Your task to perform on an android device: Open the web browser Image 0: 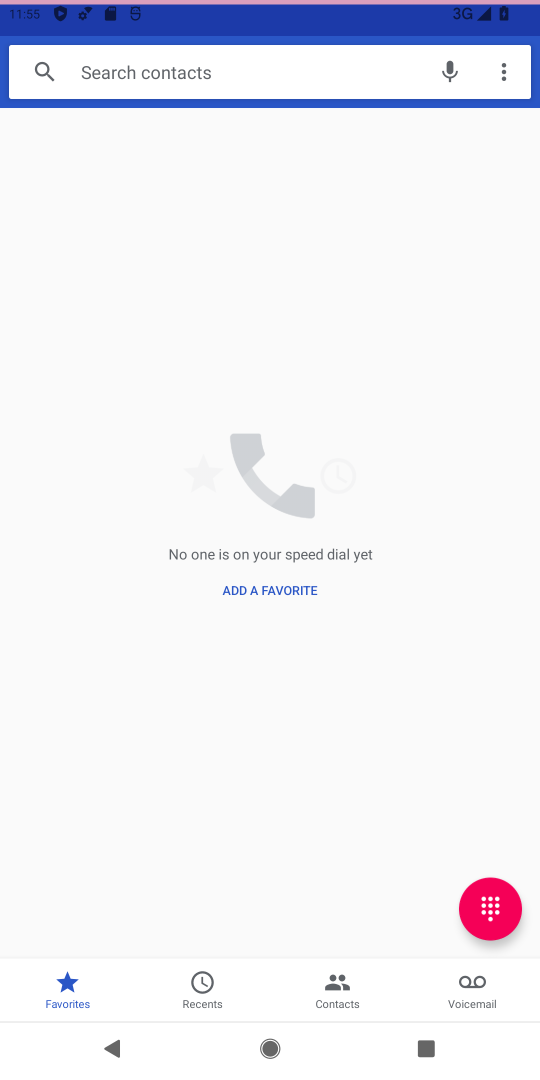
Step 0: click (365, 256)
Your task to perform on an android device: Open the web browser Image 1: 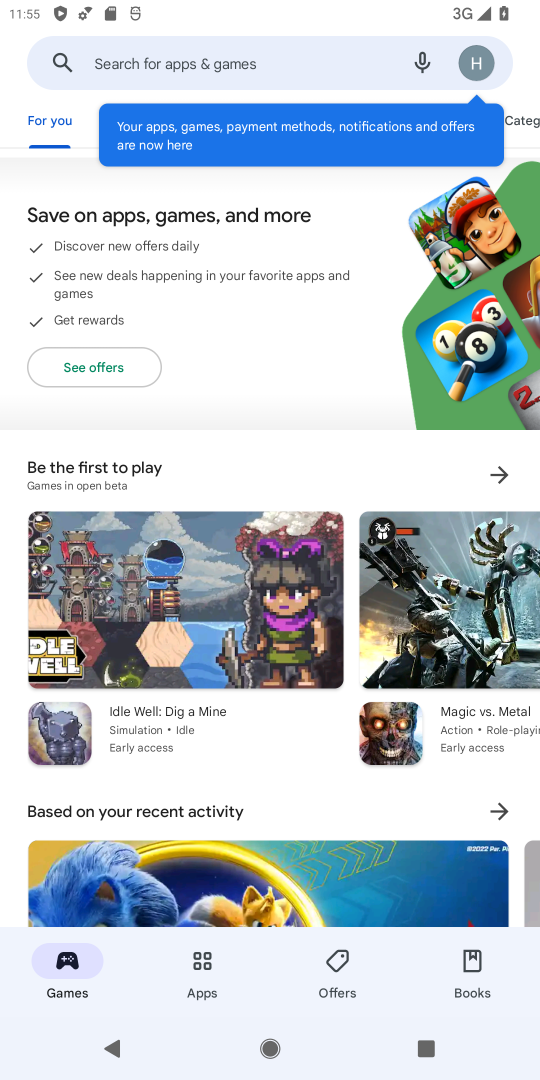
Step 1: drag from (332, 290) to (295, 1042)
Your task to perform on an android device: Open the web browser Image 2: 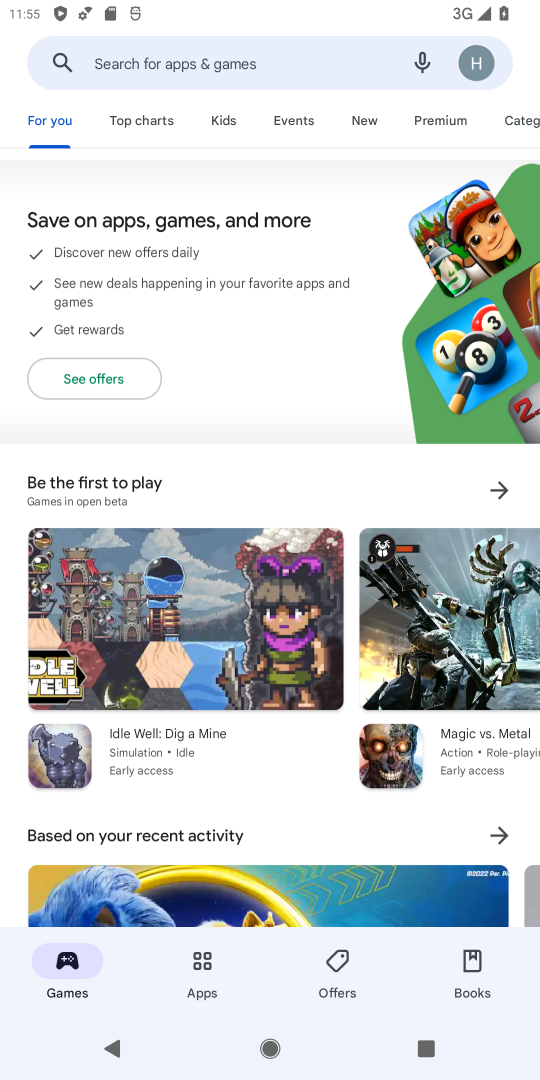
Step 2: press home button
Your task to perform on an android device: Open the web browser Image 3: 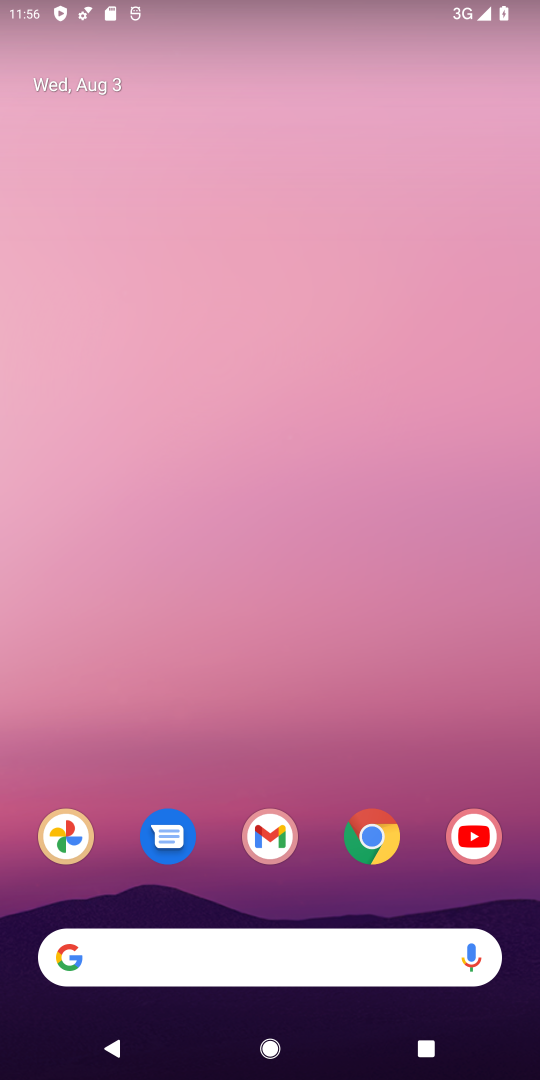
Step 3: drag from (280, 891) to (402, 39)
Your task to perform on an android device: Open the web browser Image 4: 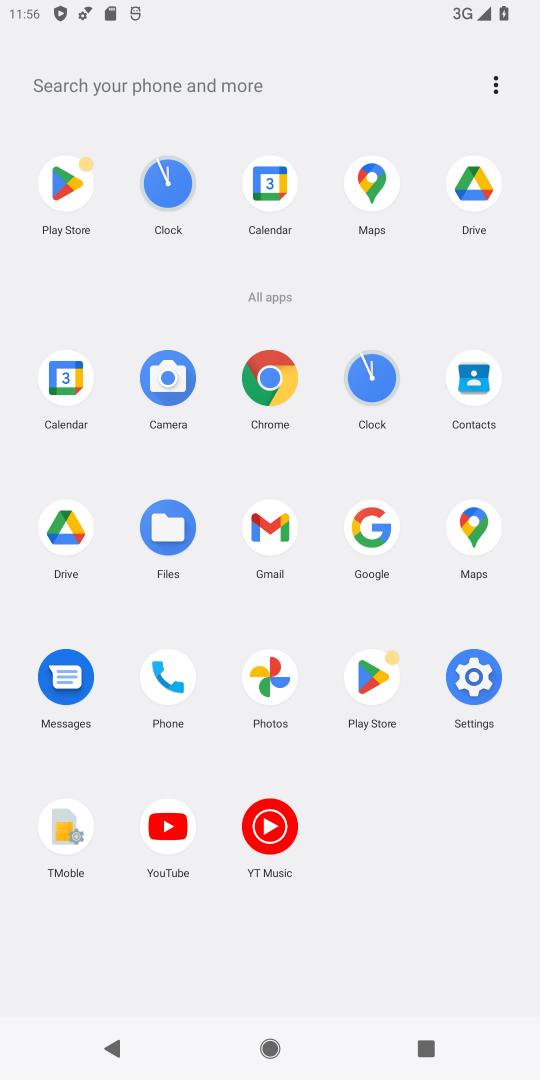
Step 4: click (259, 385)
Your task to perform on an android device: Open the web browser Image 5: 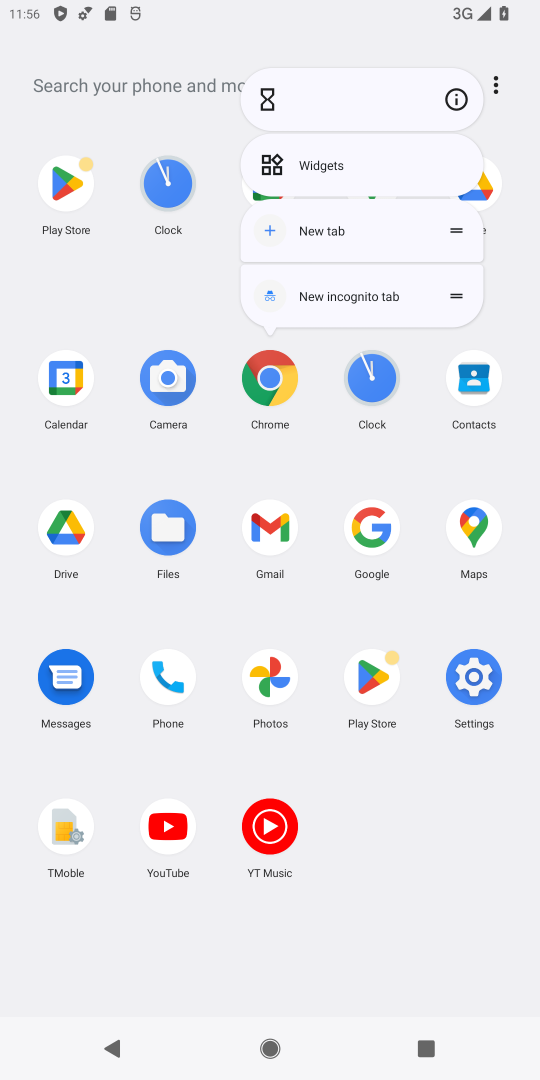
Step 5: click (460, 105)
Your task to perform on an android device: Open the web browser Image 6: 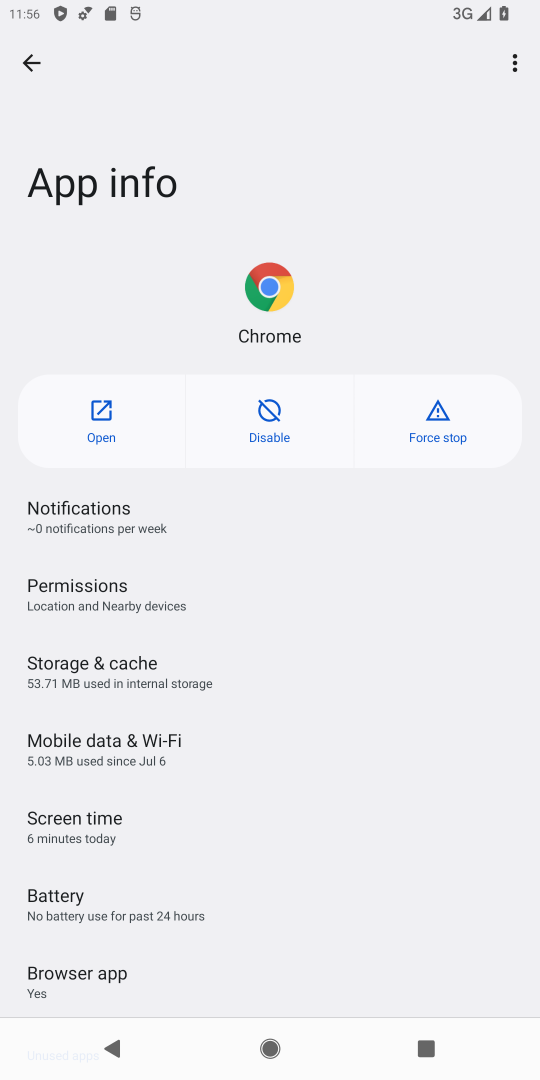
Step 6: drag from (159, 641) to (165, 458)
Your task to perform on an android device: Open the web browser Image 7: 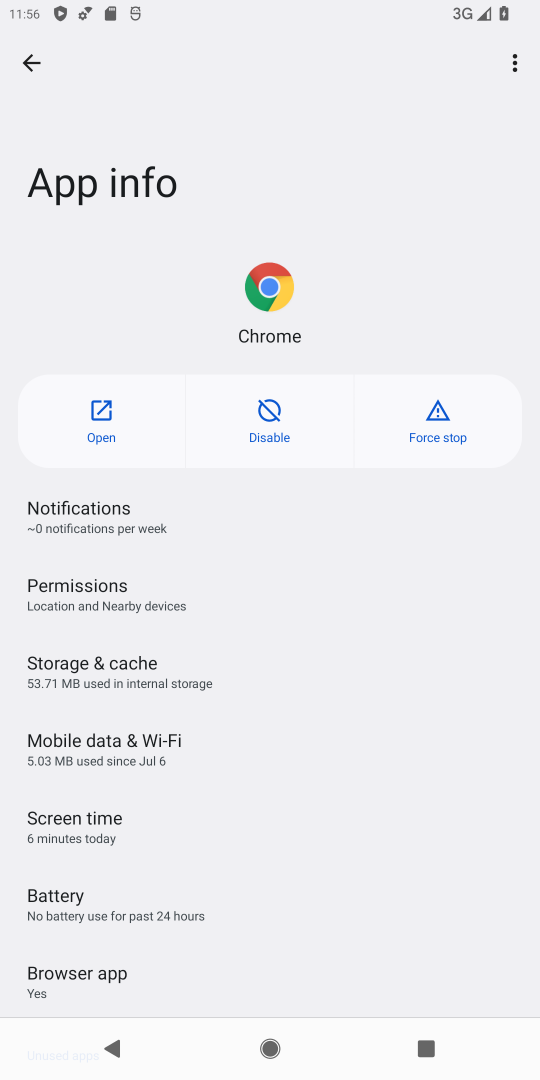
Step 7: click (112, 404)
Your task to perform on an android device: Open the web browser Image 8: 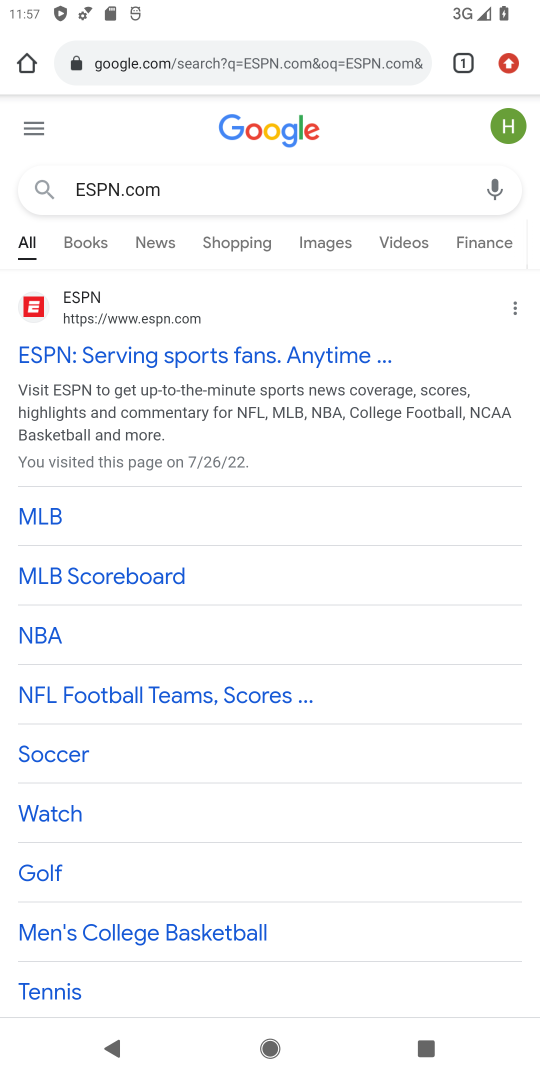
Step 8: task complete